Your task to perform on an android device: Go to Reddit.com Image 0: 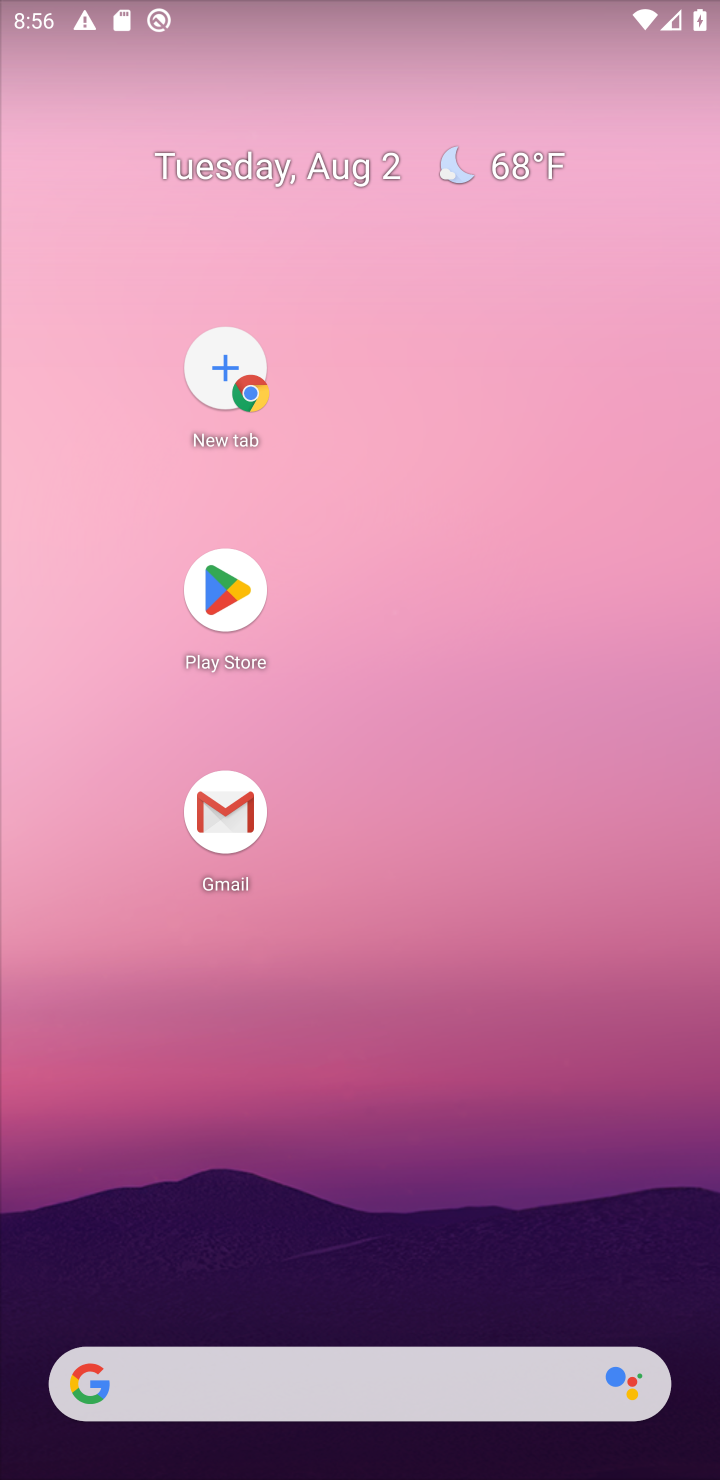
Step 0: click (477, 383)
Your task to perform on an android device: Go to Reddit.com Image 1: 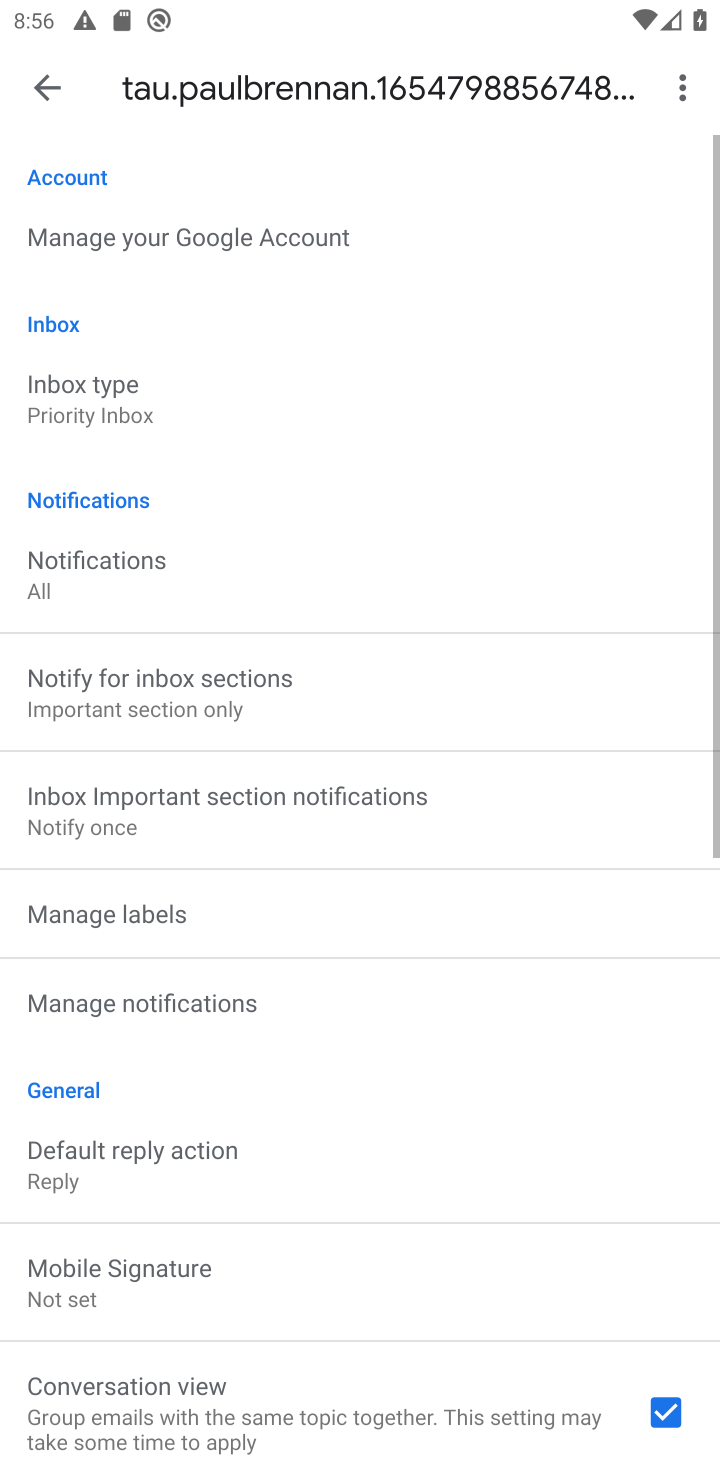
Step 1: click (56, 75)
Your task to perform on an android device: Go to Reddit.com Image 2: 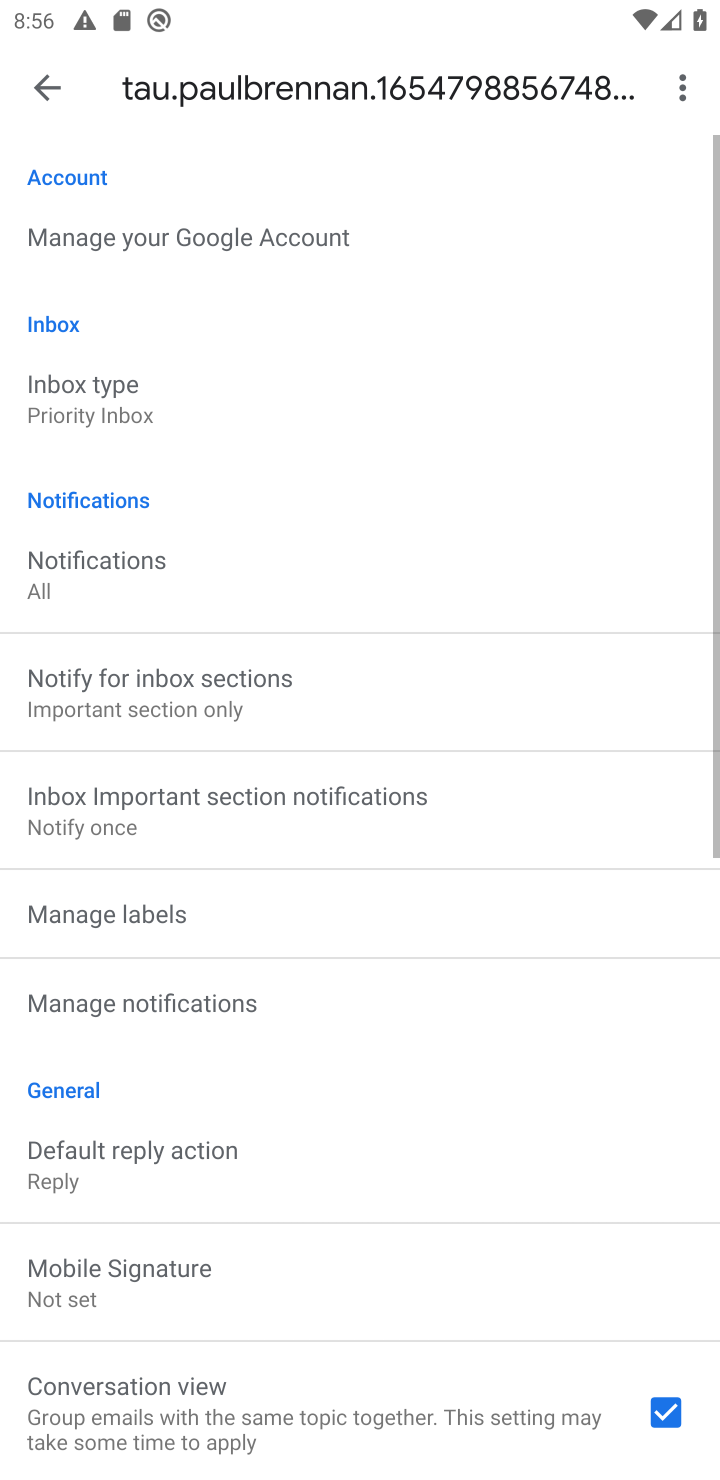
Step 2: click (53, 74)
Your task to perform on an android device: Go to Reddit.com Image 3: 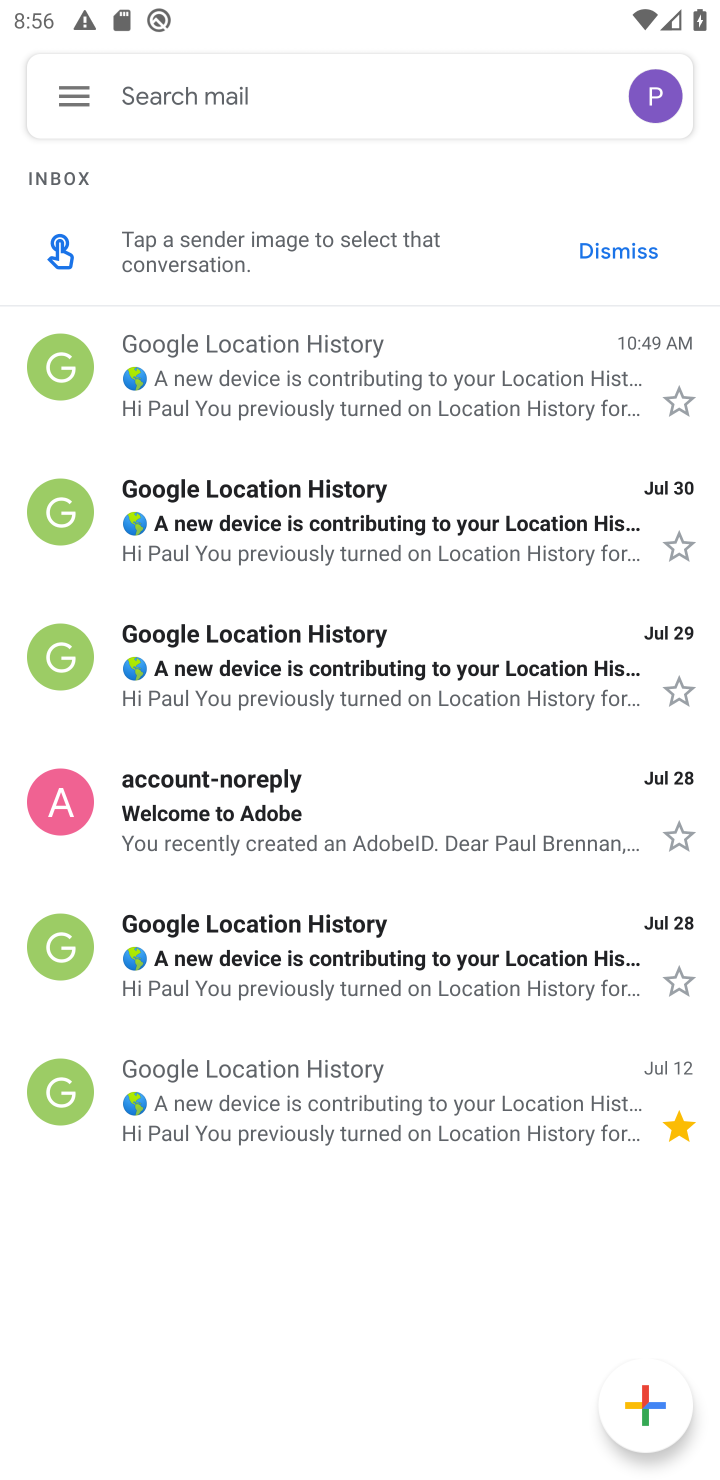
Step 3: press back button
Your task to perform on an android device: Go to Reddit.com Image 4: 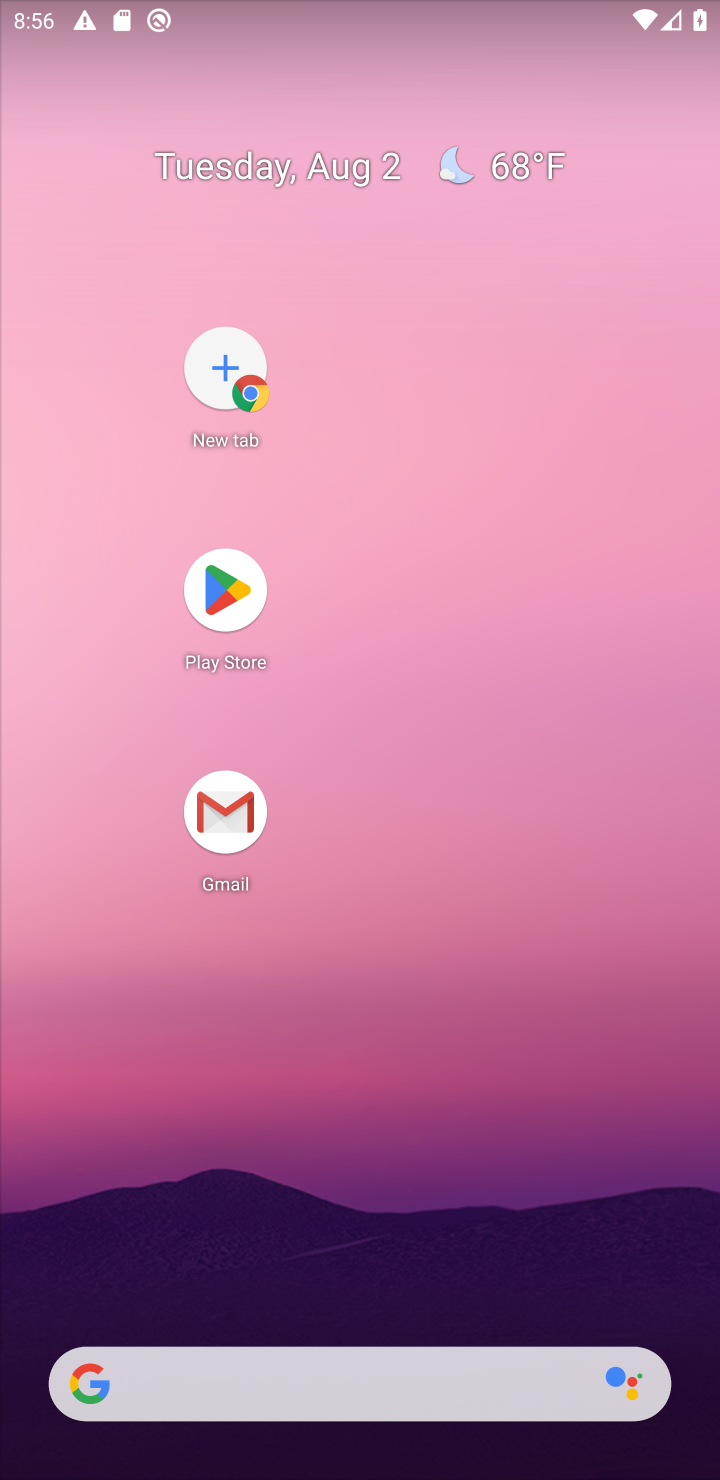
Step 4: press home button
Your task to perform on an android device: Go to Reddit.com Image 5: 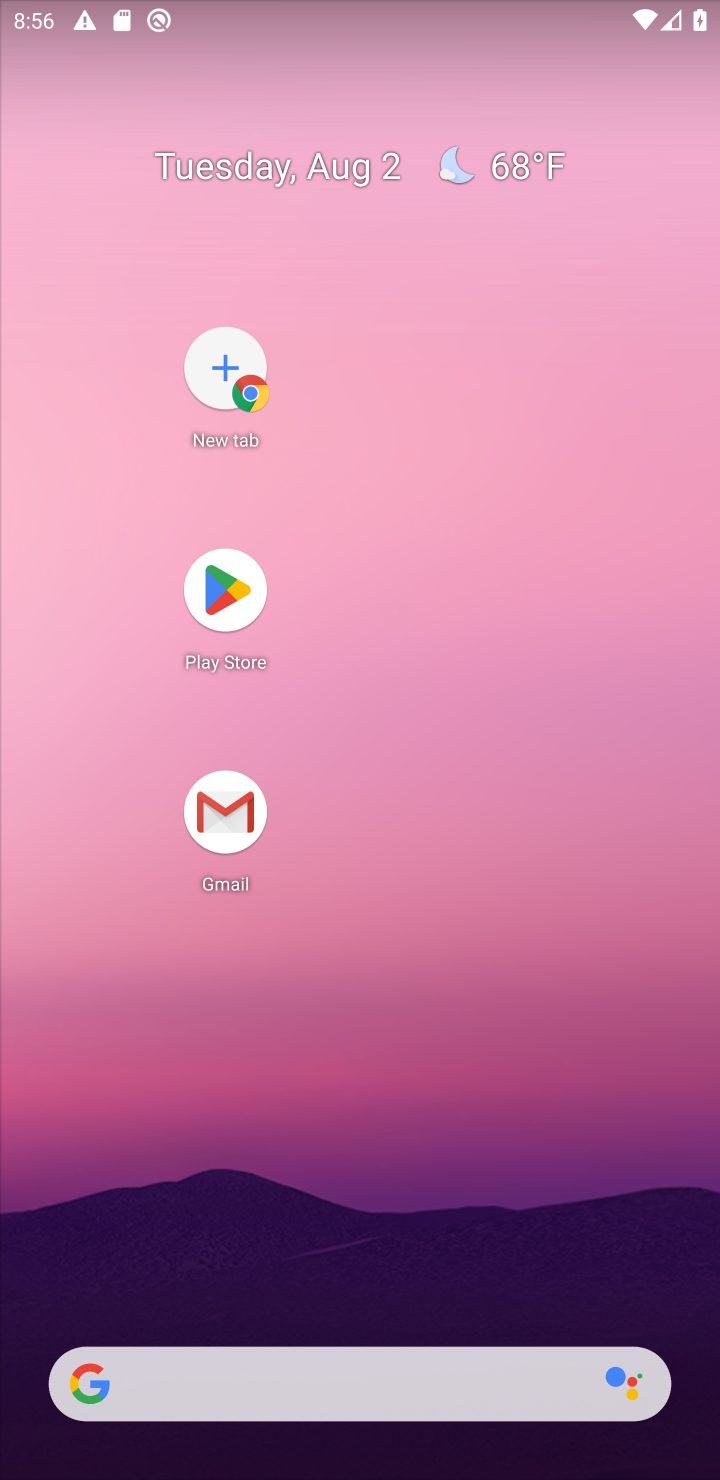
Step 5: drag from (457, 1393) to (430, 329)
Your task to perform on an android device: Go to Reddit.com Image 6: 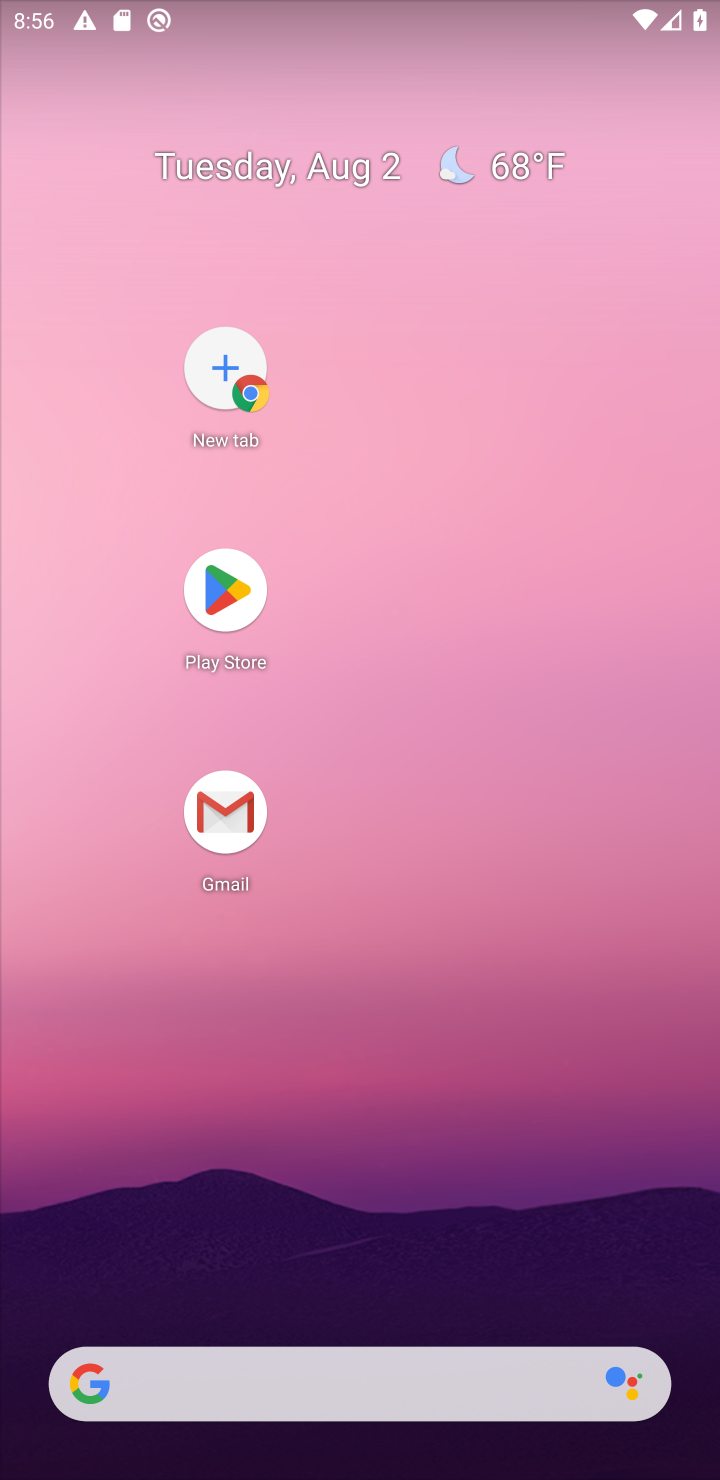
Step 6: click (372, 673)
Your task to perform on an android device: Go to Reddit.com Image 7: 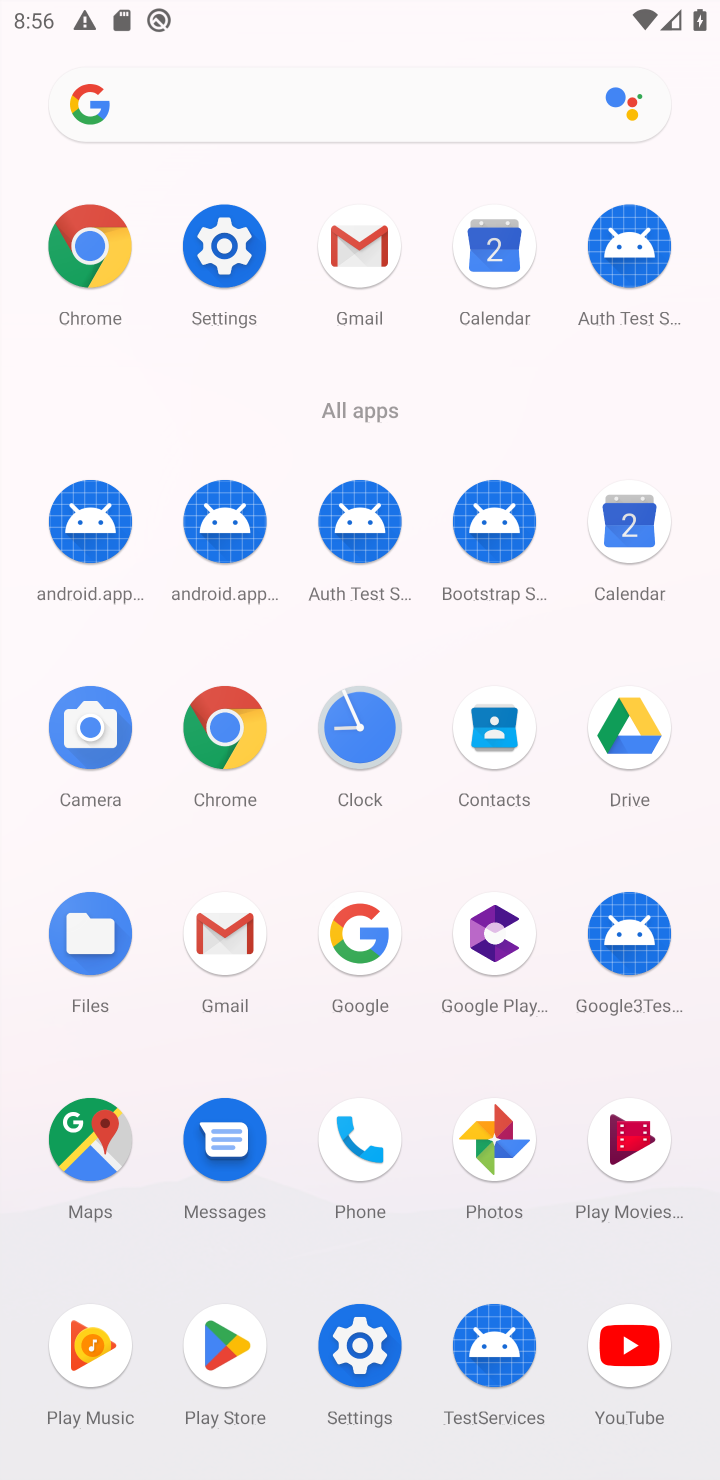
Step 7: drag from (308, 958) to (308, 561)
Your task to perform on an android device: Go to Reddit.com Image 8: 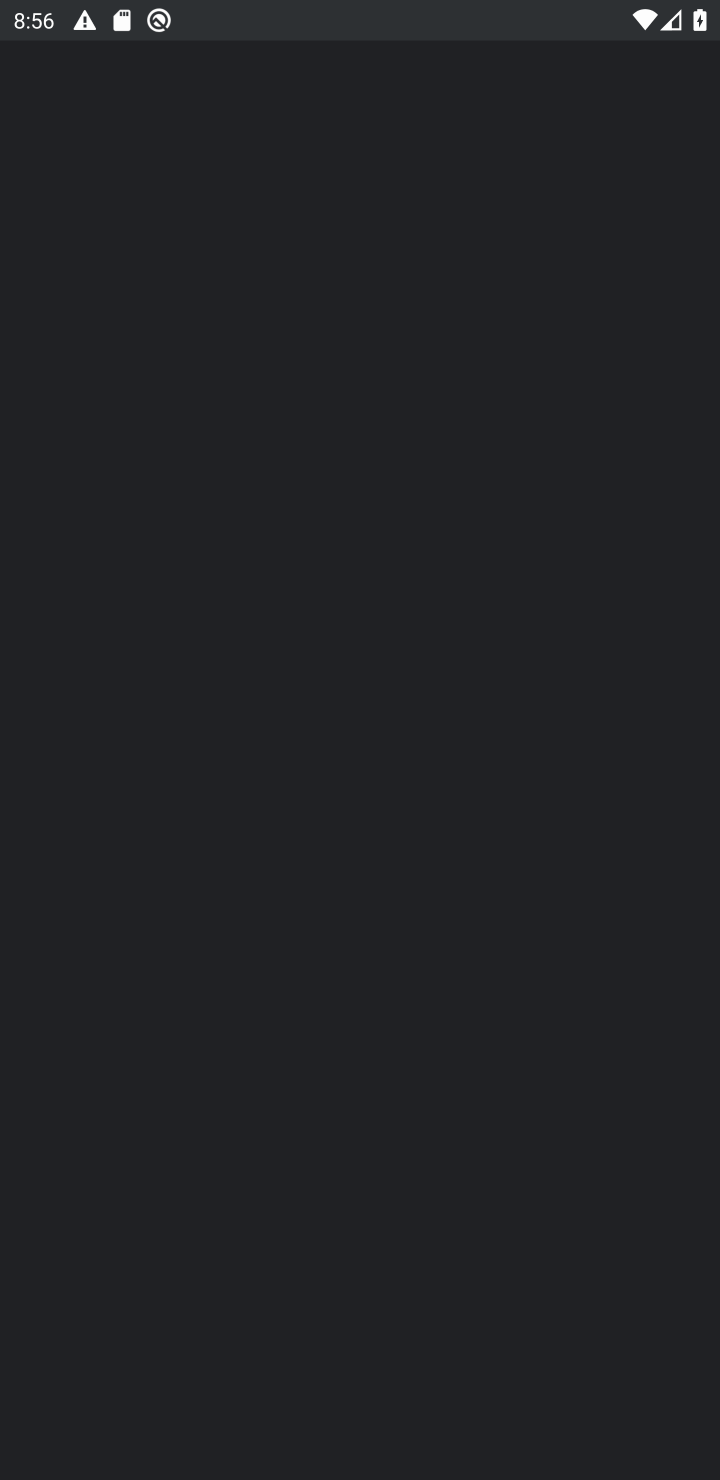
Step 8: click (106, 267)
Your task to perform on an android device: Go to Reddit.com Image 9: 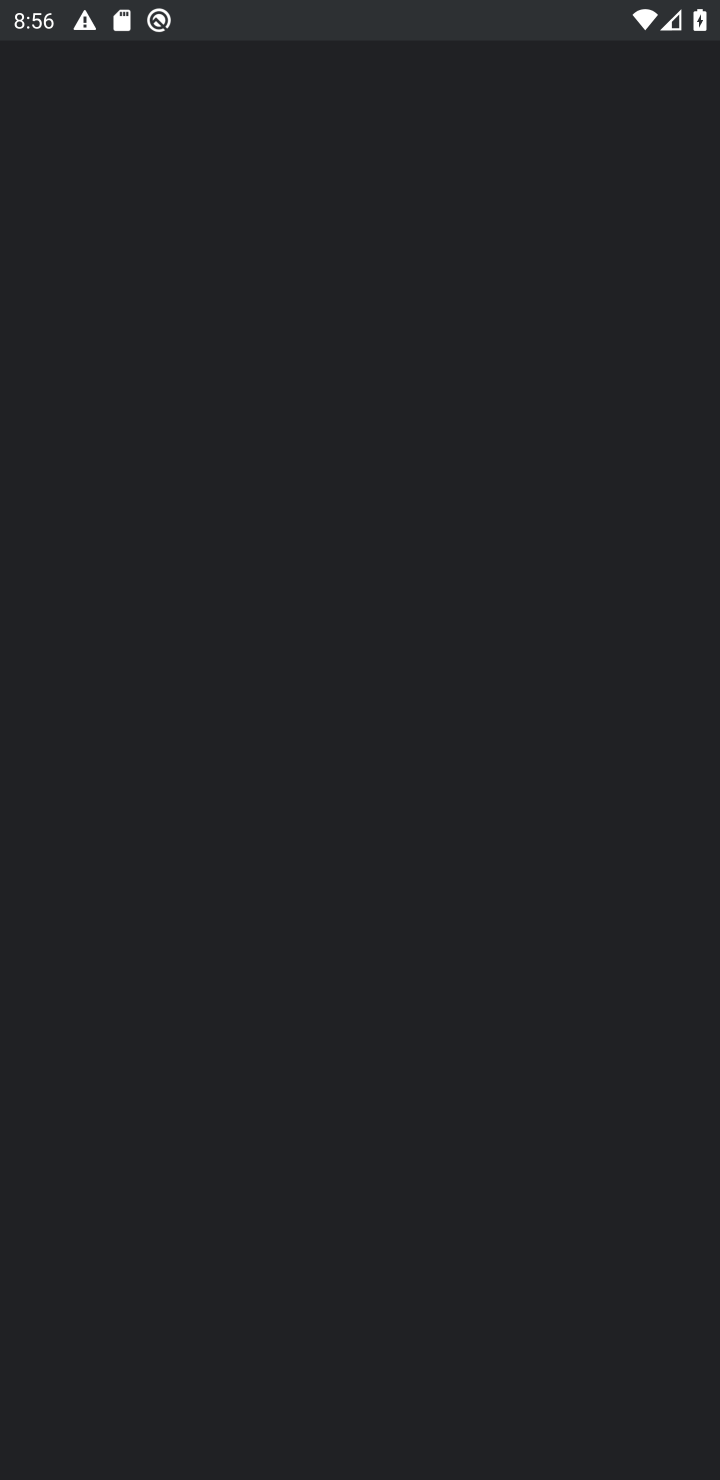
Step 9: click (95, 256)
Your task to perform on an android device: Go to Reddit.com Image 10: 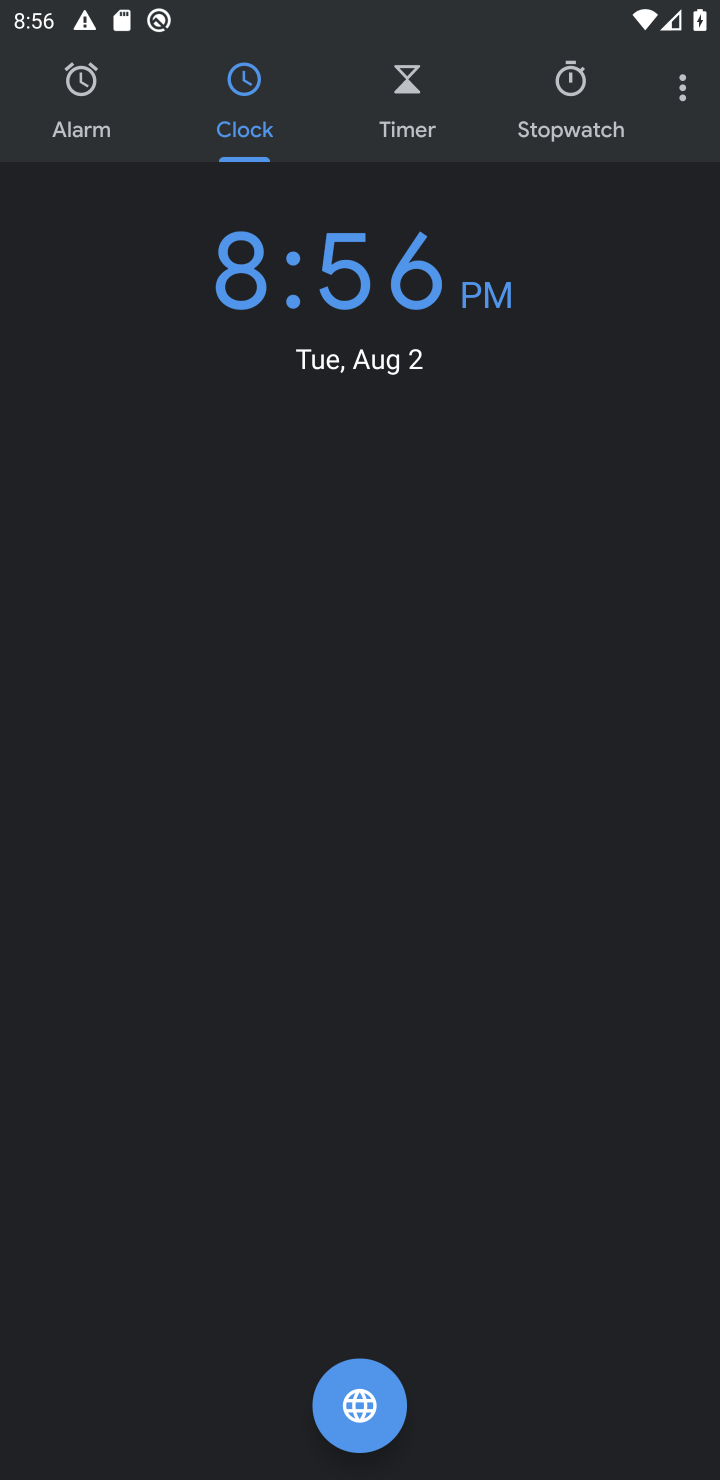
Step 10: press back button
Your task to perform on an android device: Go to Reddit.com Image 11: 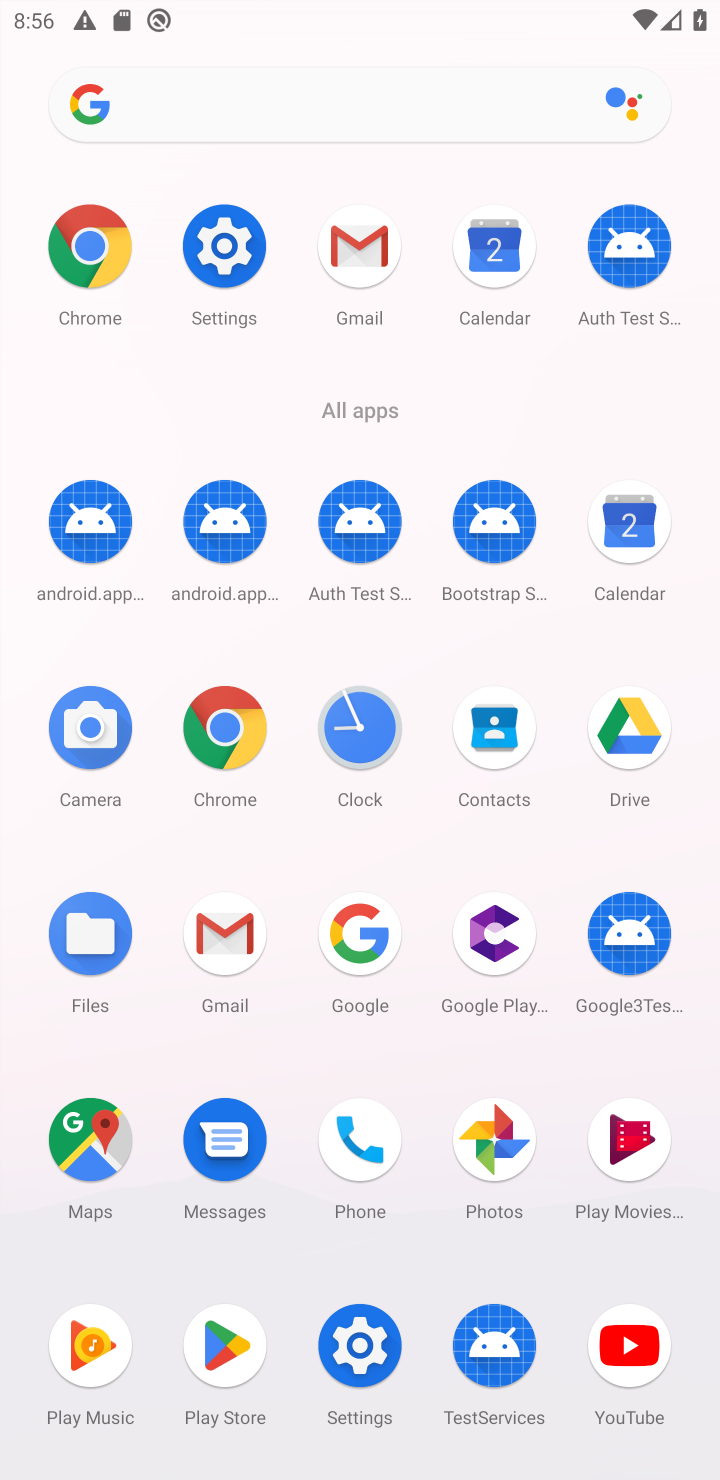
Step 11: click (94, 278)
Your task to perform on an android device: Go to Reddit.com Image 12: 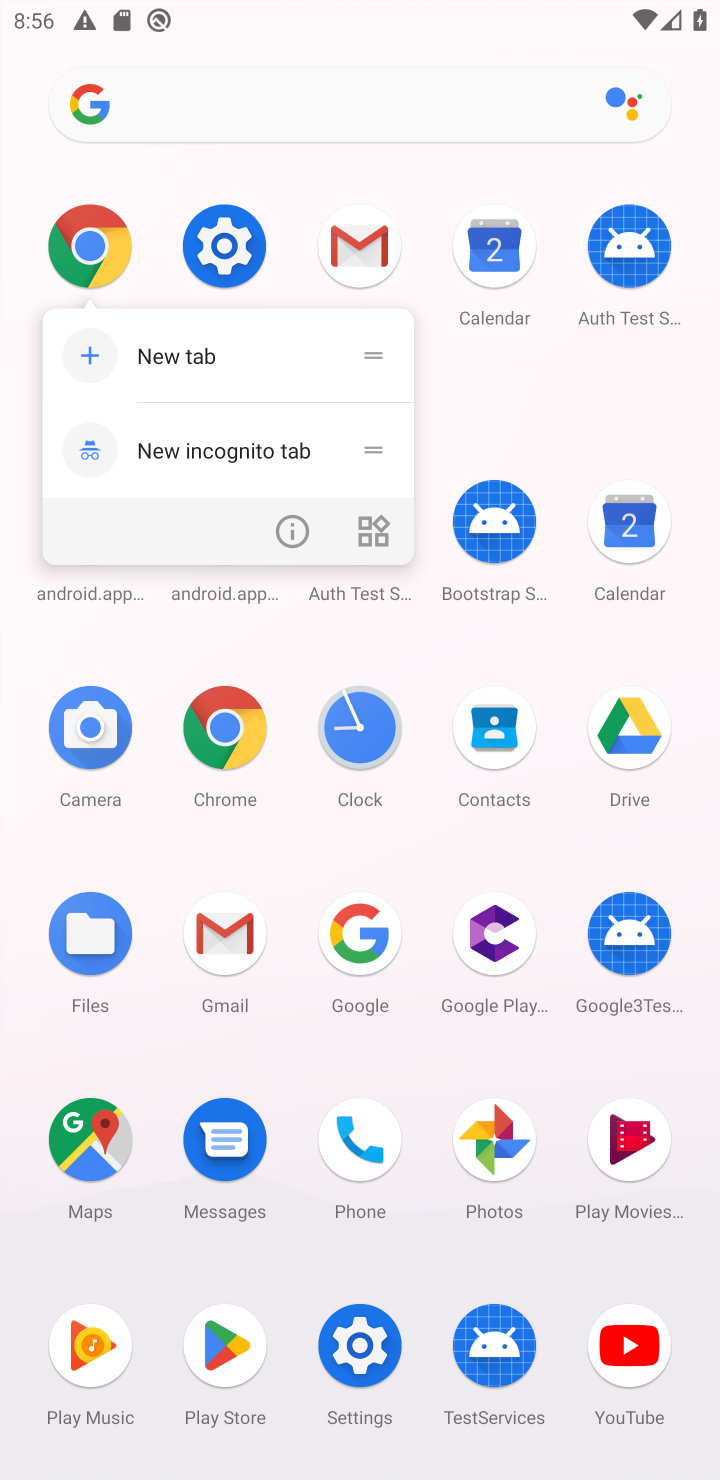
Step 12: click (81, 271)
Your task to perform on an android device: Go to Reddit.com Image 13: 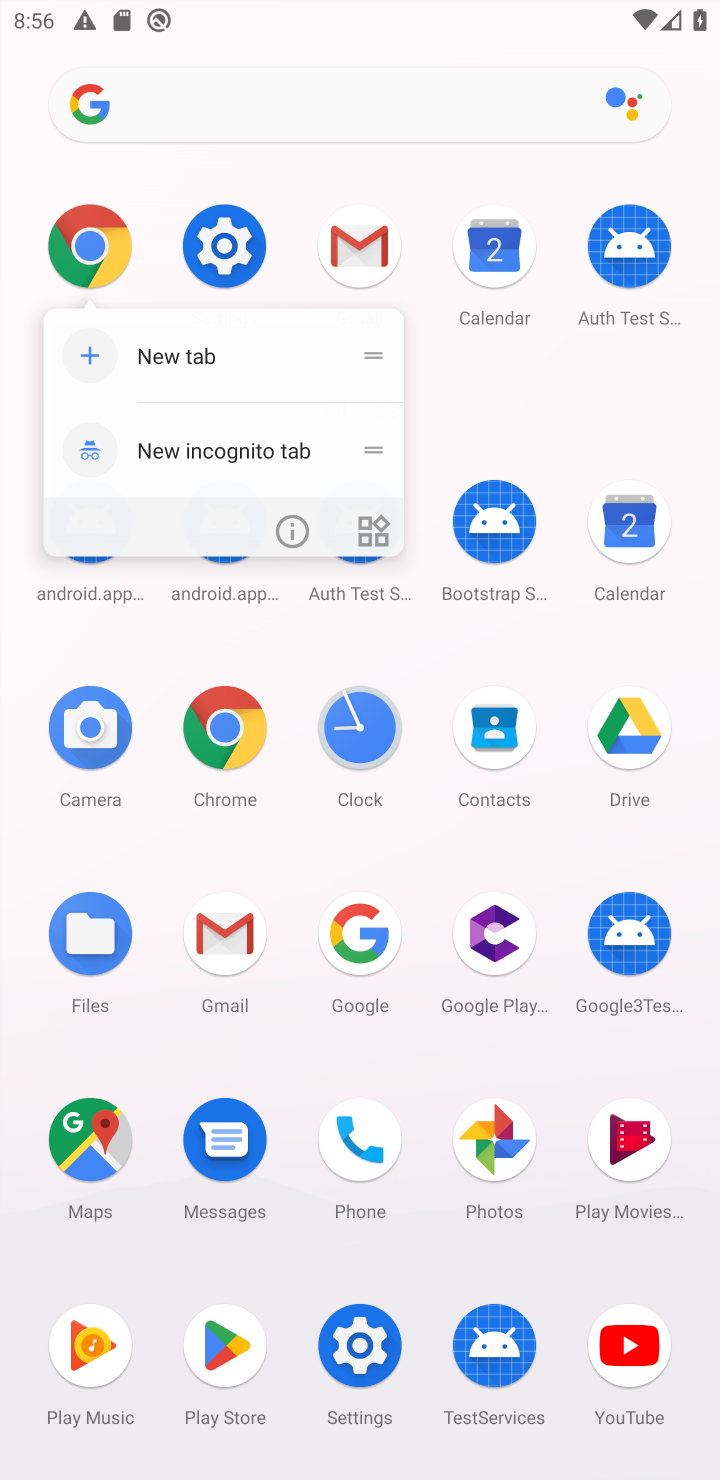
Step 13: click (149, 361)
Your task to perform on an android device: Go to Reddit.com Image 14: 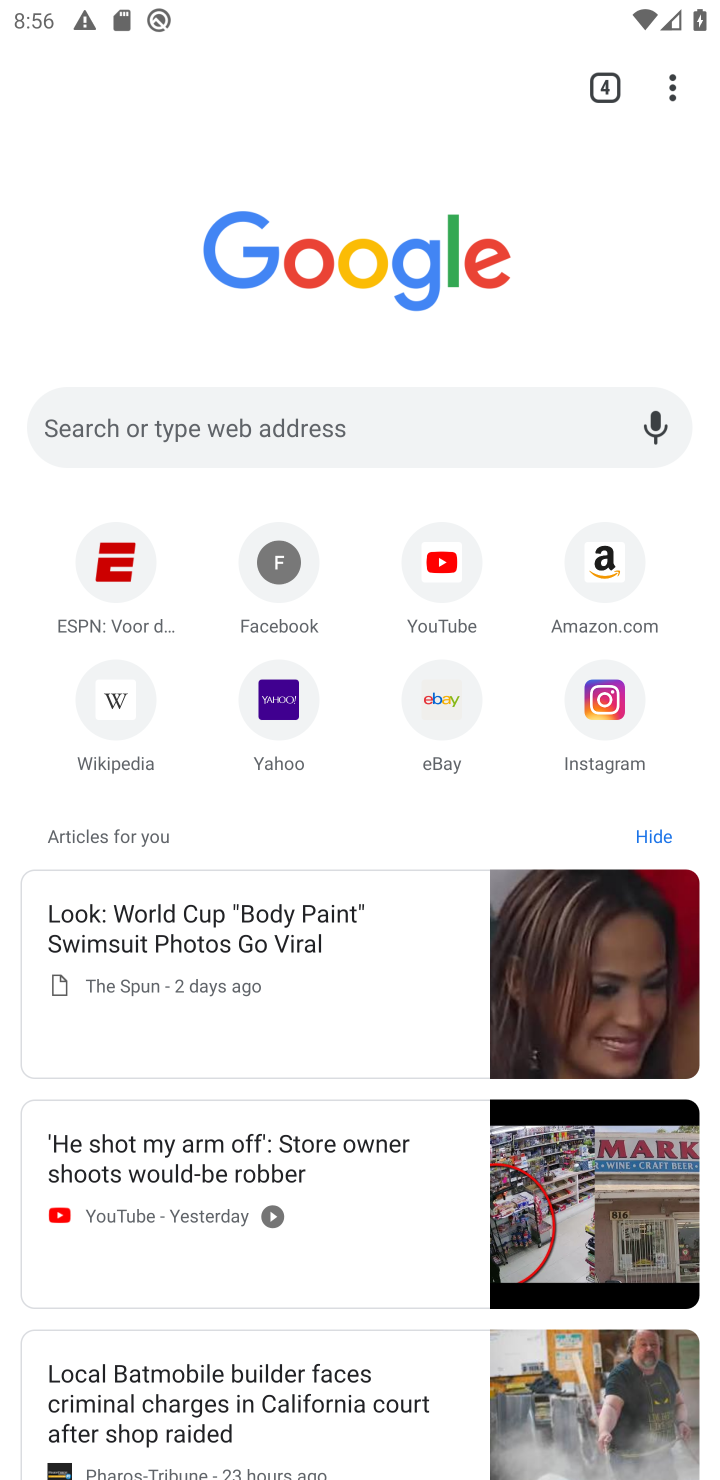
Step 14: click (196, 450)
Your task to perform on an android device: Go to Reddit.com Image 15: 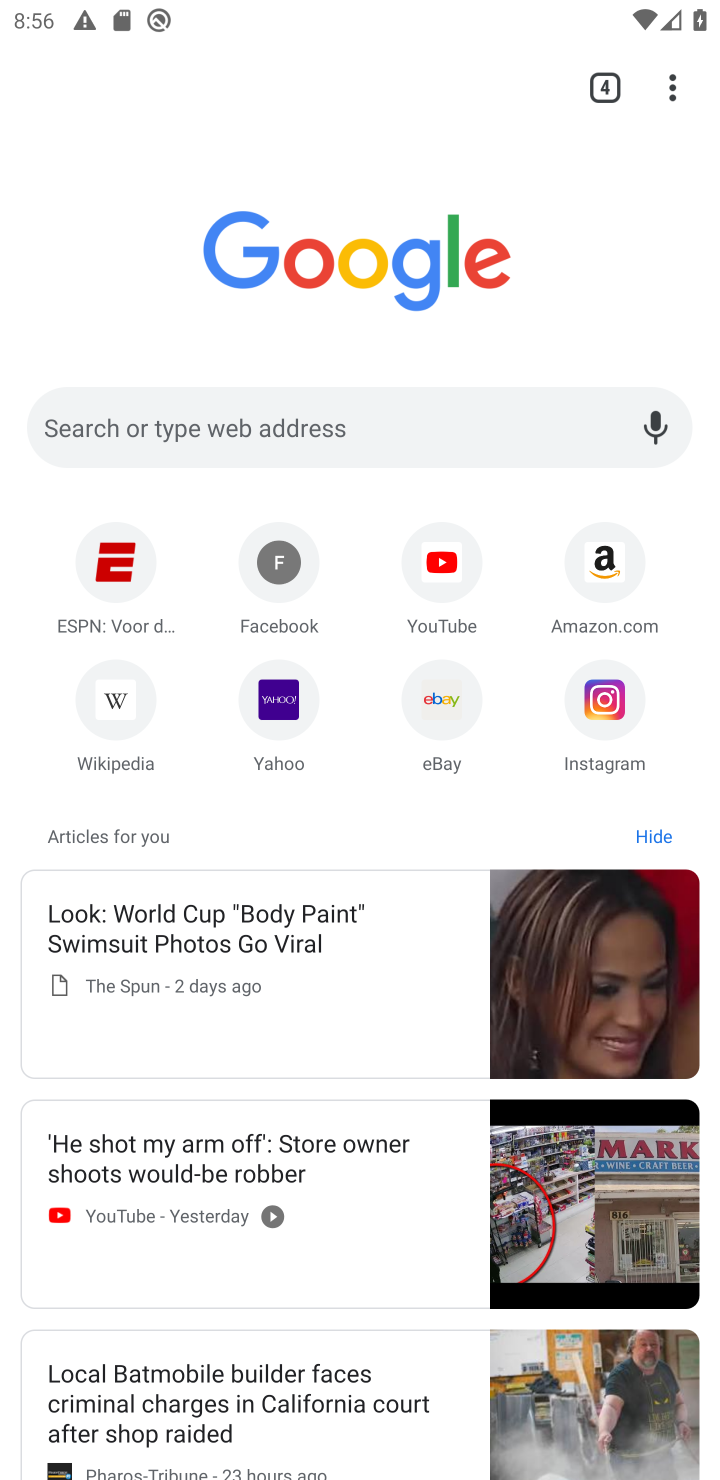
Step 15: click (194, 441)
Your task to perform on an android device: Go to Reddit.com Image 16: 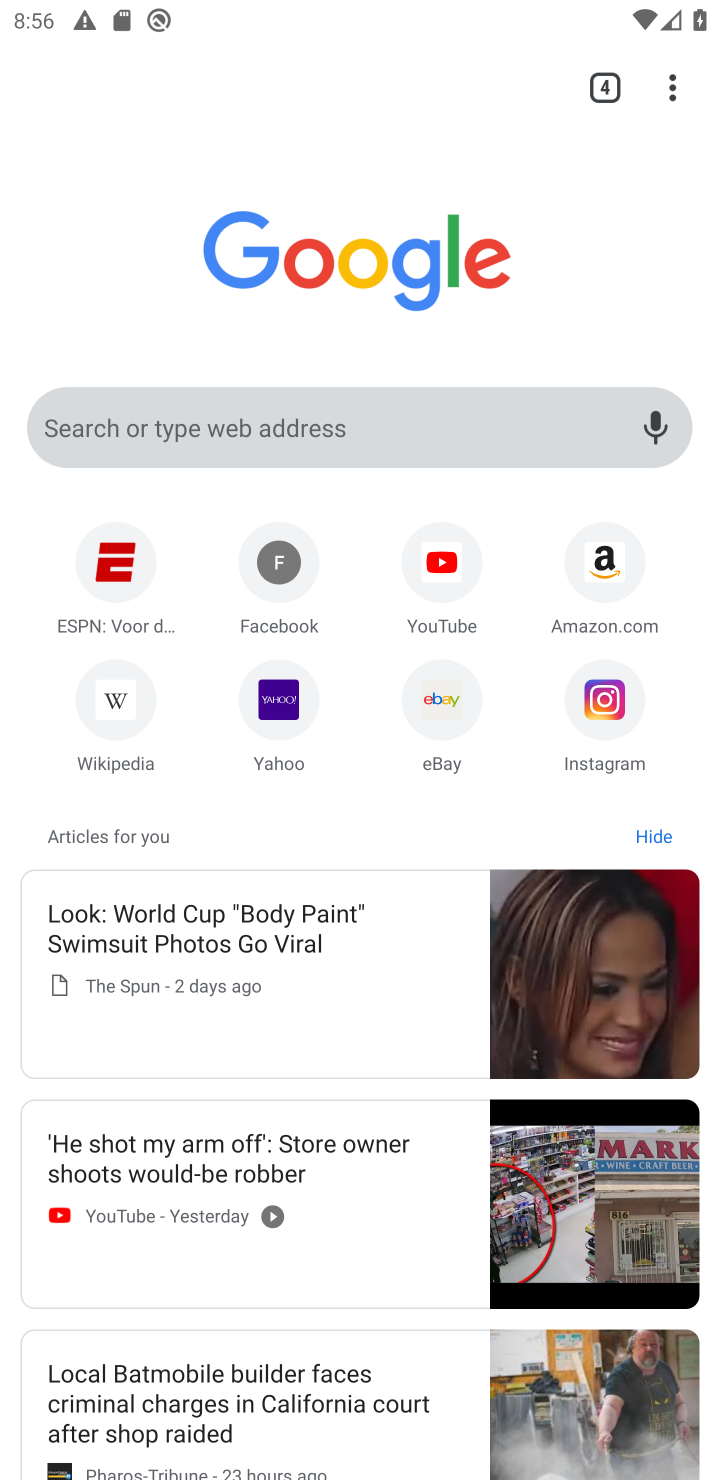
Step 16: click (194, 441)
Your task to perform on an android device: Go to Reddit.com Image 17: 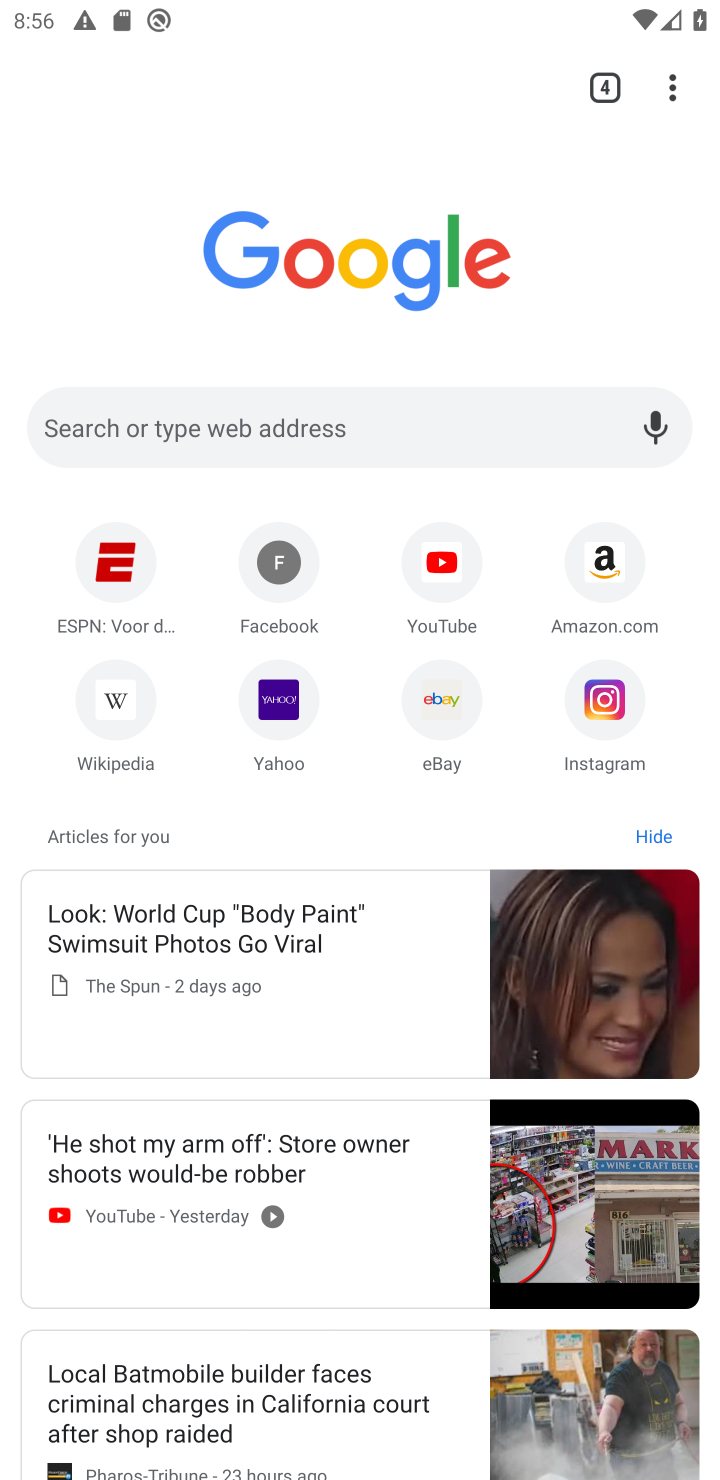
Step 17: type "re"
Your task to perform on an android device: Go to Reddit.com Image 18: 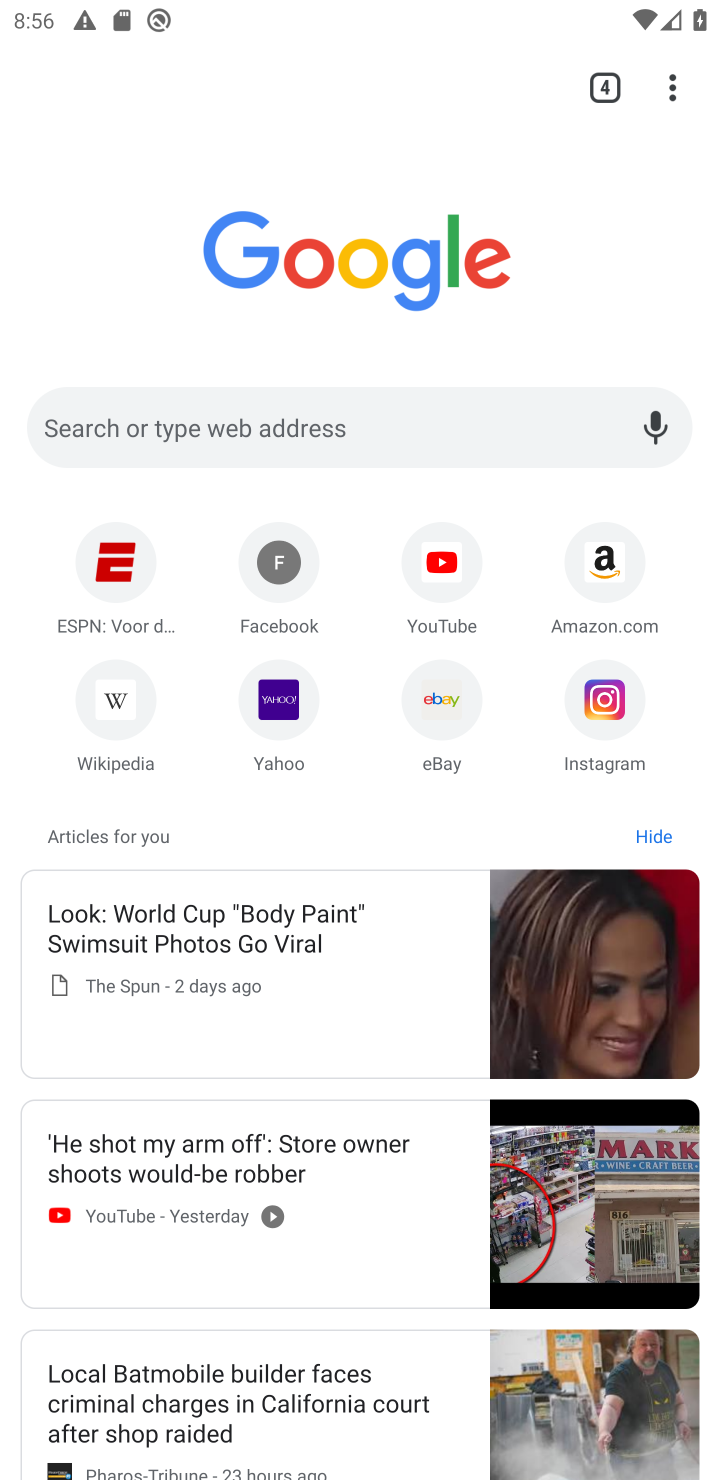
Step 18: click (103, 423)
Your task to perform on an android device: Go to Reddit.com Image 19: 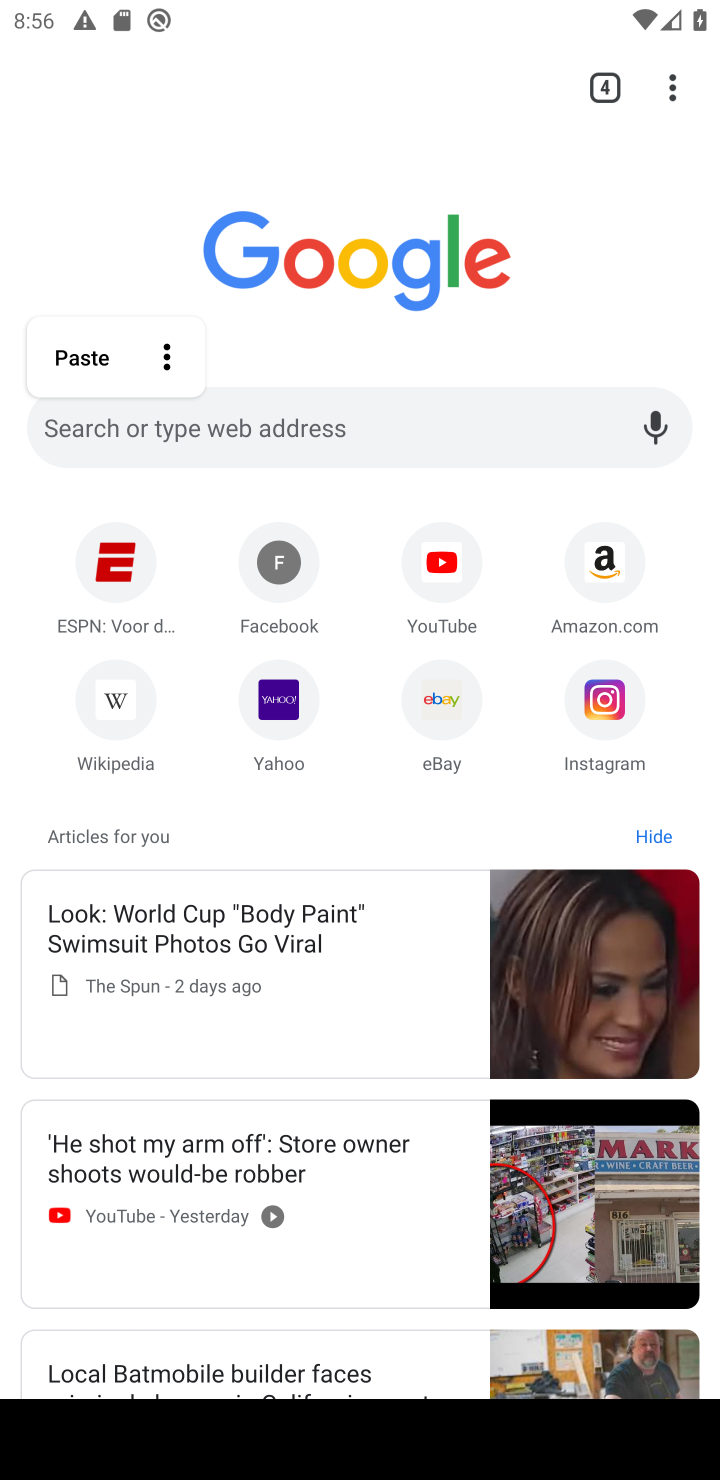
Step 19: type "reddit"
Your task to perform on an android device: Go to Reddit.com Image 20: 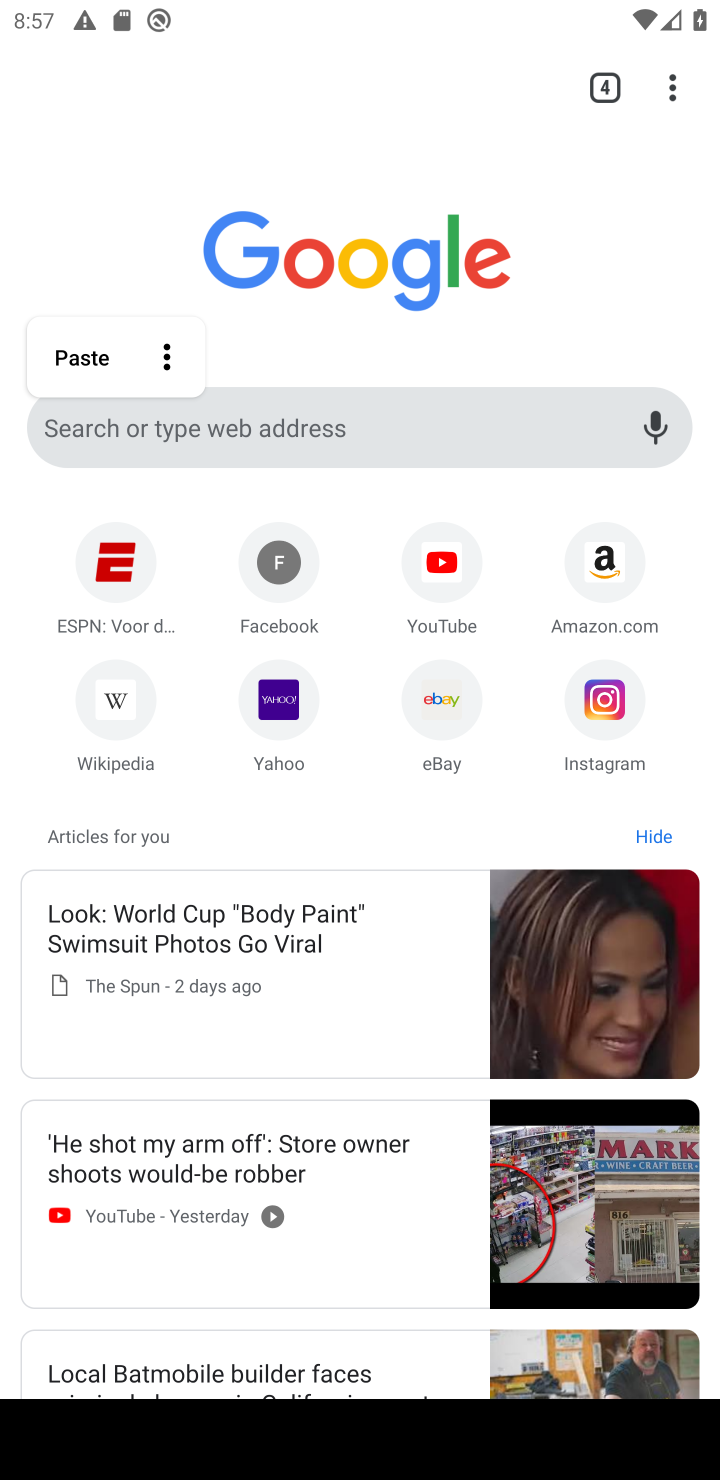
Step 20: click (124, 413)
Your task to perform on an android device: Go to Reddit.com Image 21: 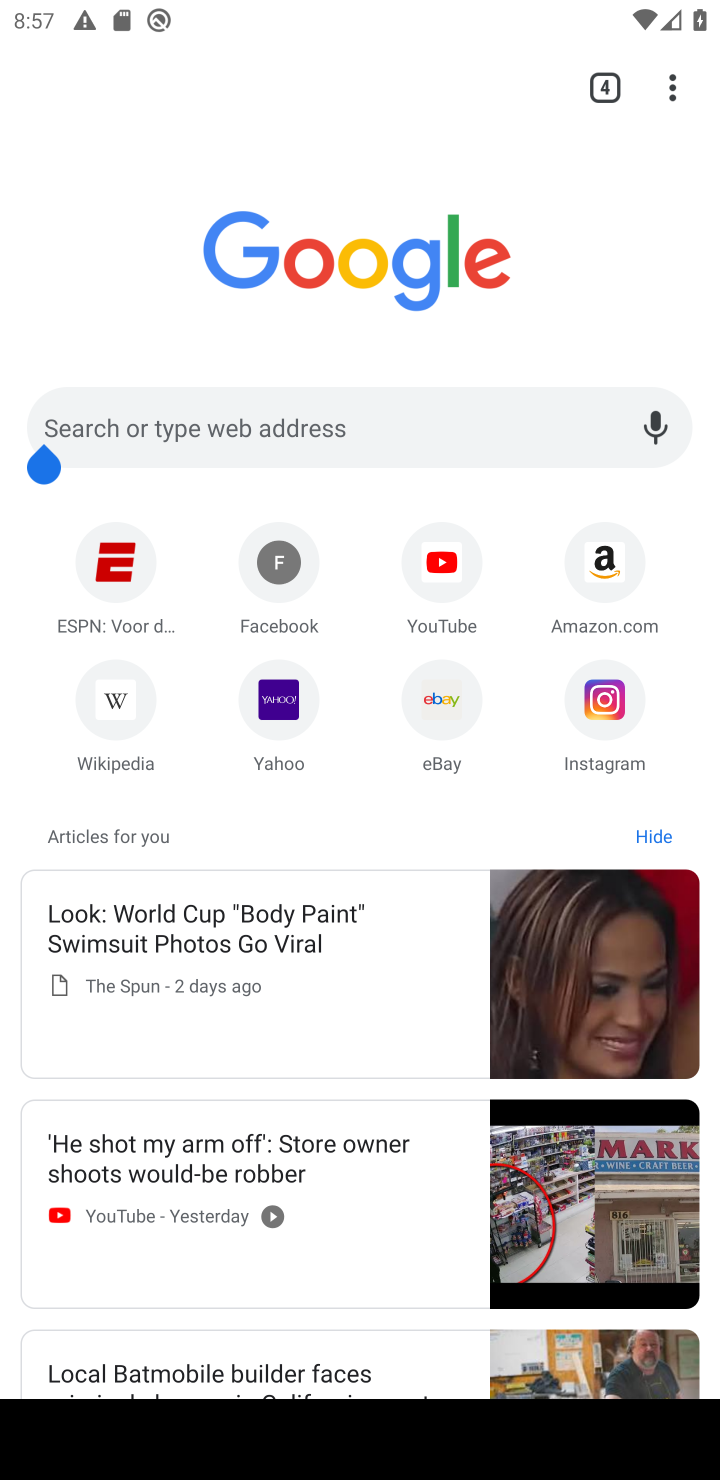
Step 21: click (148, 417)
Your task to perform on an android device: Go to Reddit.com Image 22: 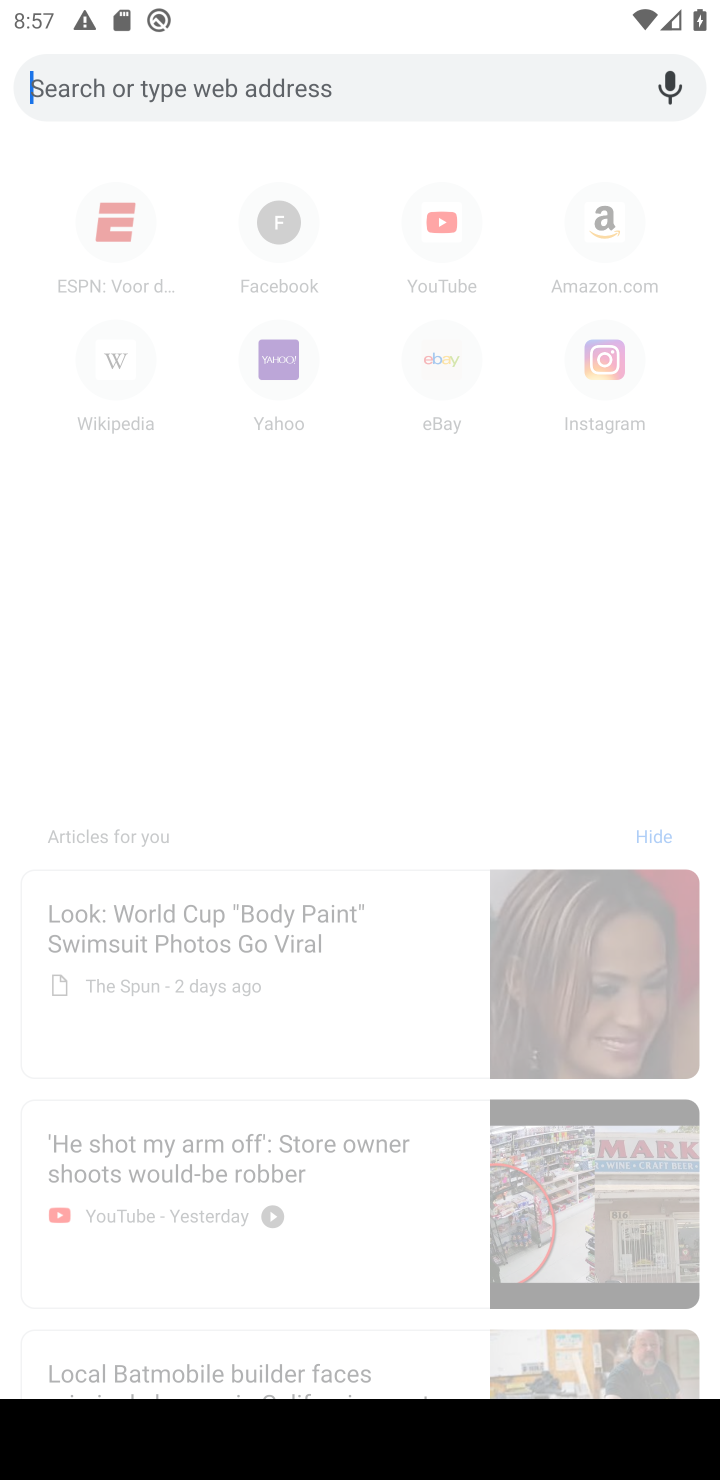
Step 22: type "reddit"
Your task to perform on an android device: Go to Reddit.com Image 23: 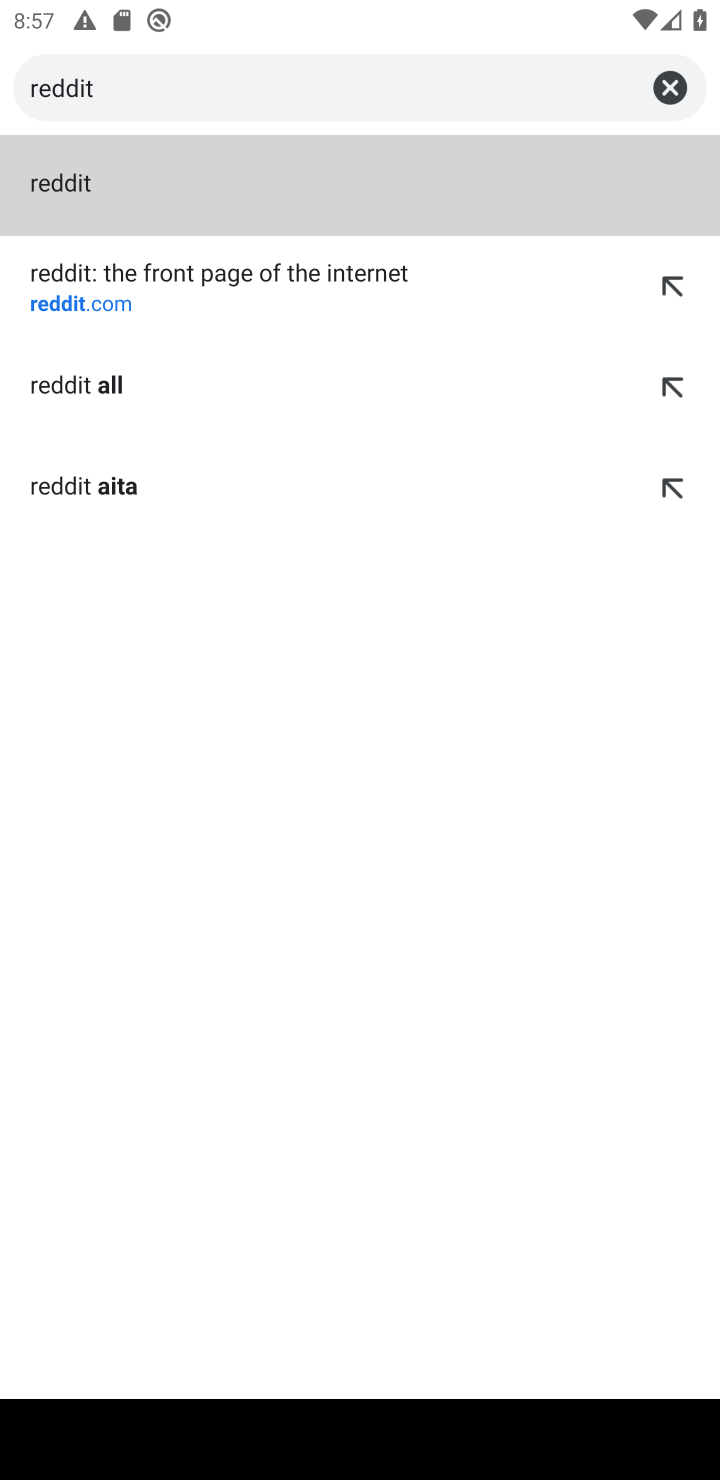
Step 23: click (74, 185)
Your task to perform on an android device: Go to Reddit.com Image 24: 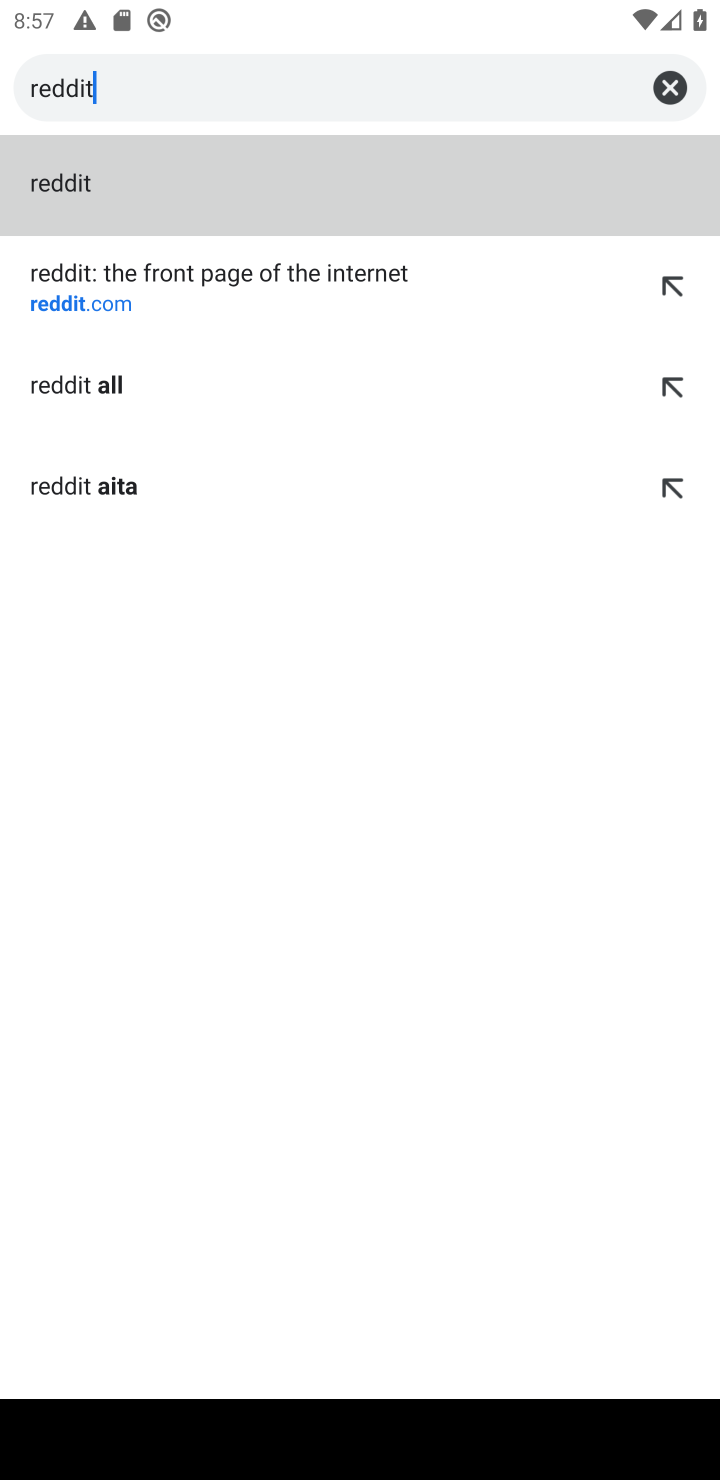
Step 24: click (76, 182)
Your task to perform on an android device: Go to Reddit.com Image 25: 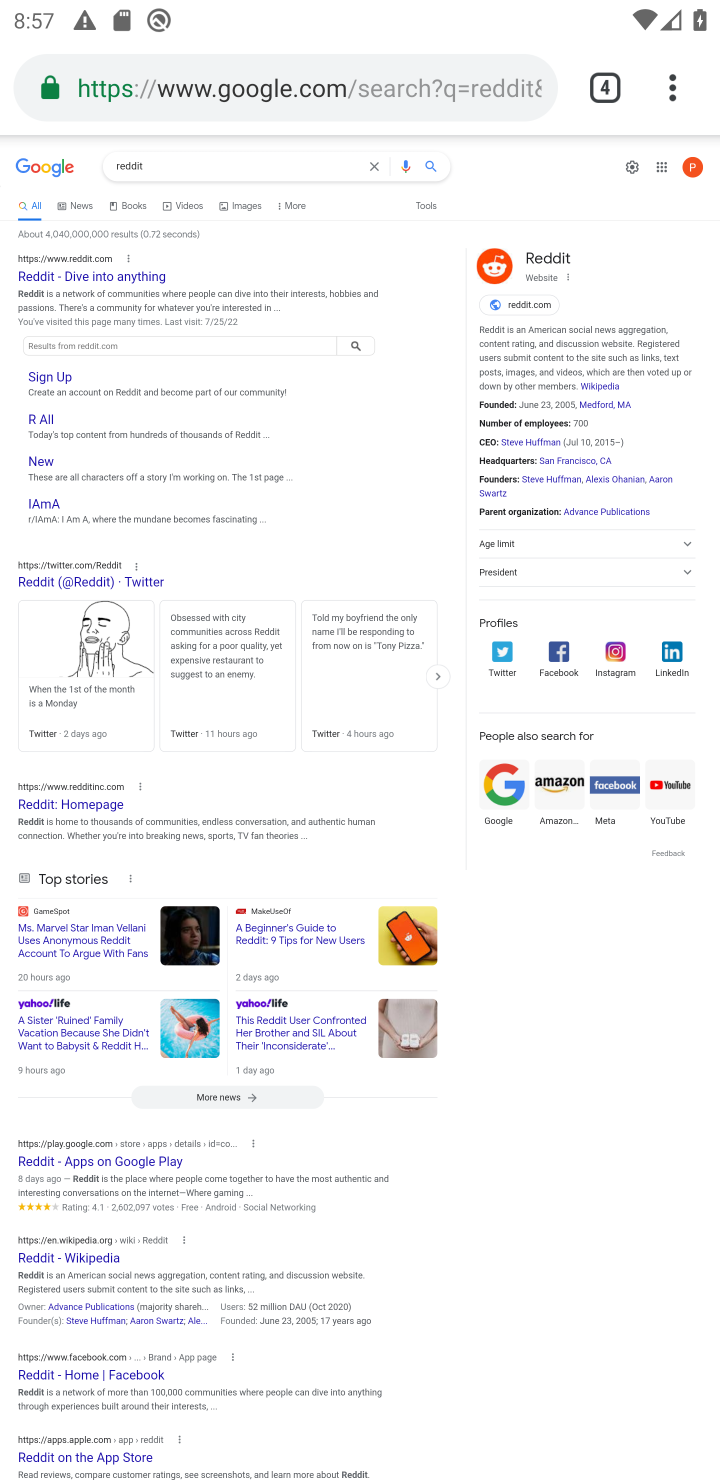
Step 25: task complete